Your task to perform on an android device: Open internet settings Image 0: 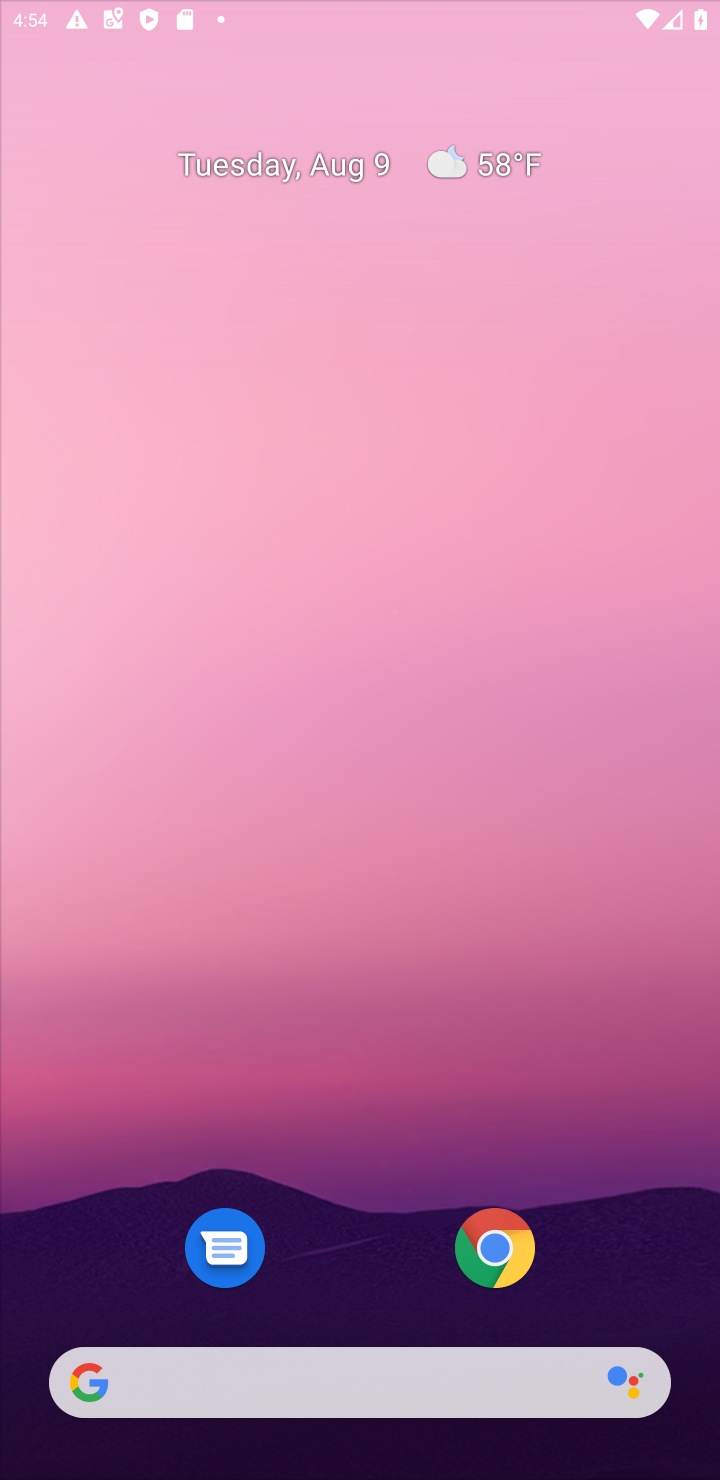
Step 0: press home button
Your task to perform on an android device: Open internet settings Image 1: 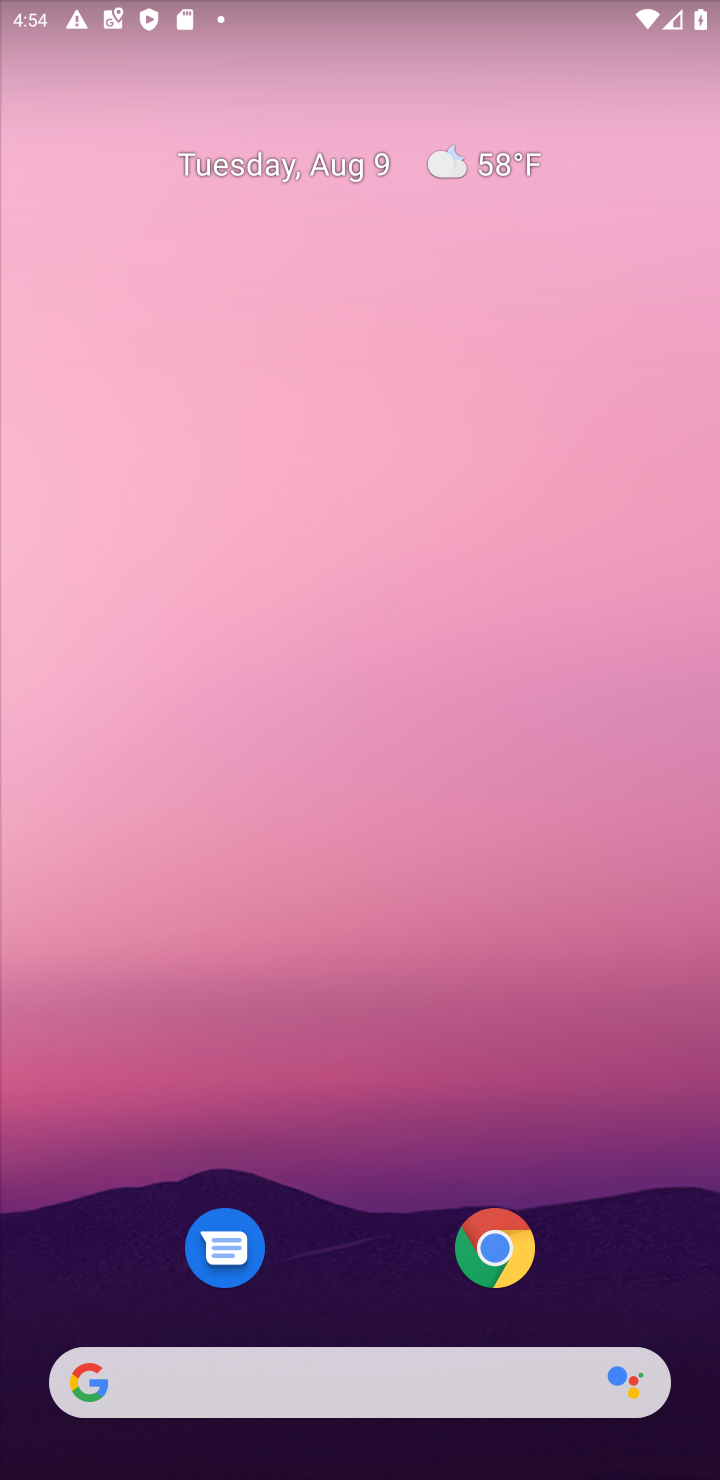
Step 1: drag from (367, 1158) to (295, 209)
Your task to perform on an android device: Open internet settings Image 2: 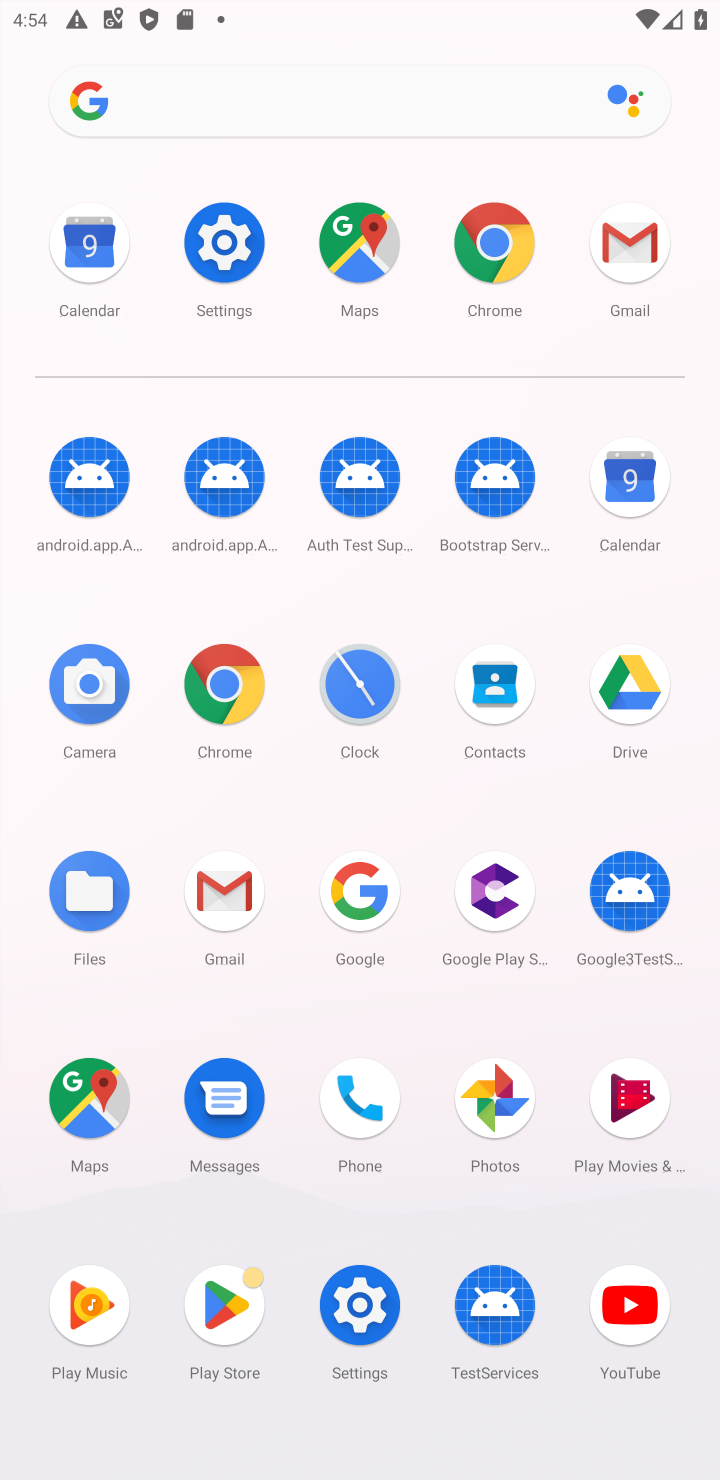
Step 2: click (218, 230)
Your task to perform on an android device: Open internet settings Image 3: 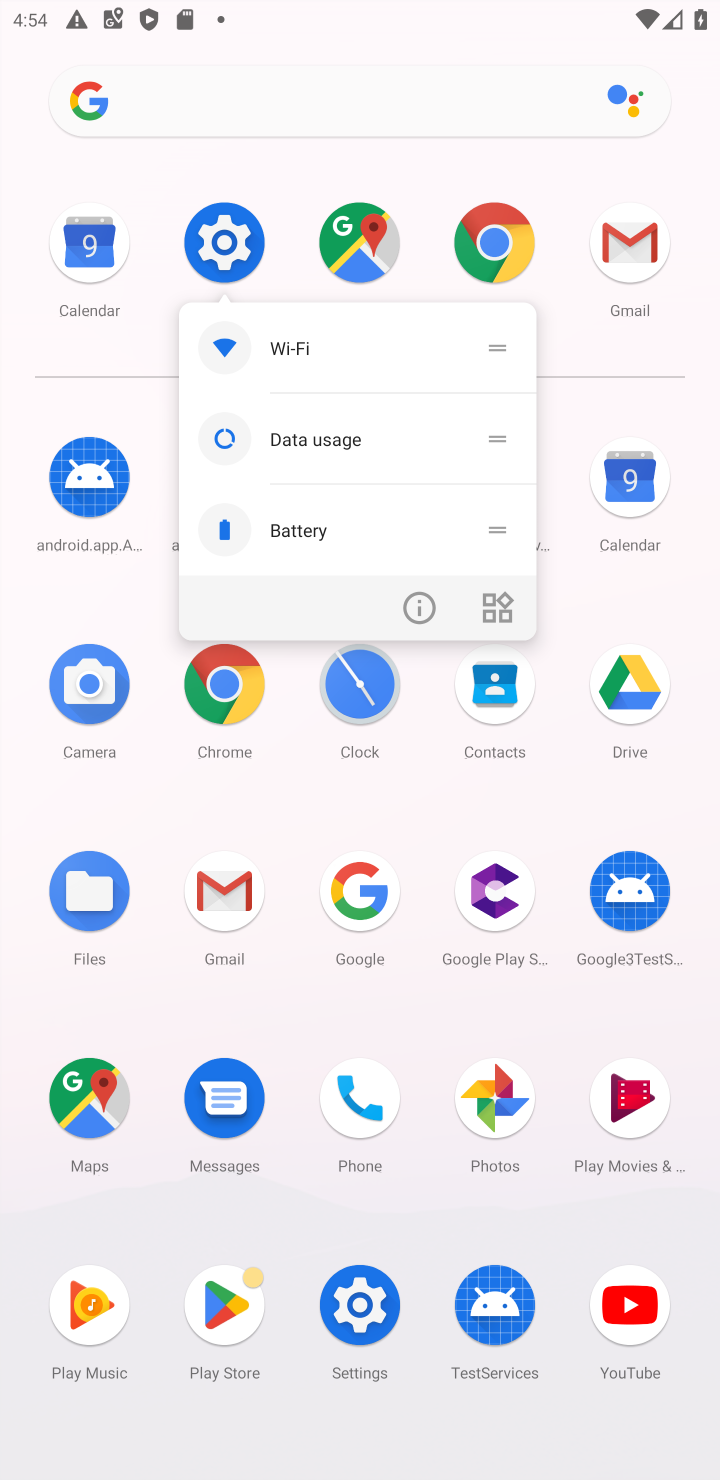
Step 3: click (365, 1297)
Your task to perform on an android device: Open internet settings Image 4: 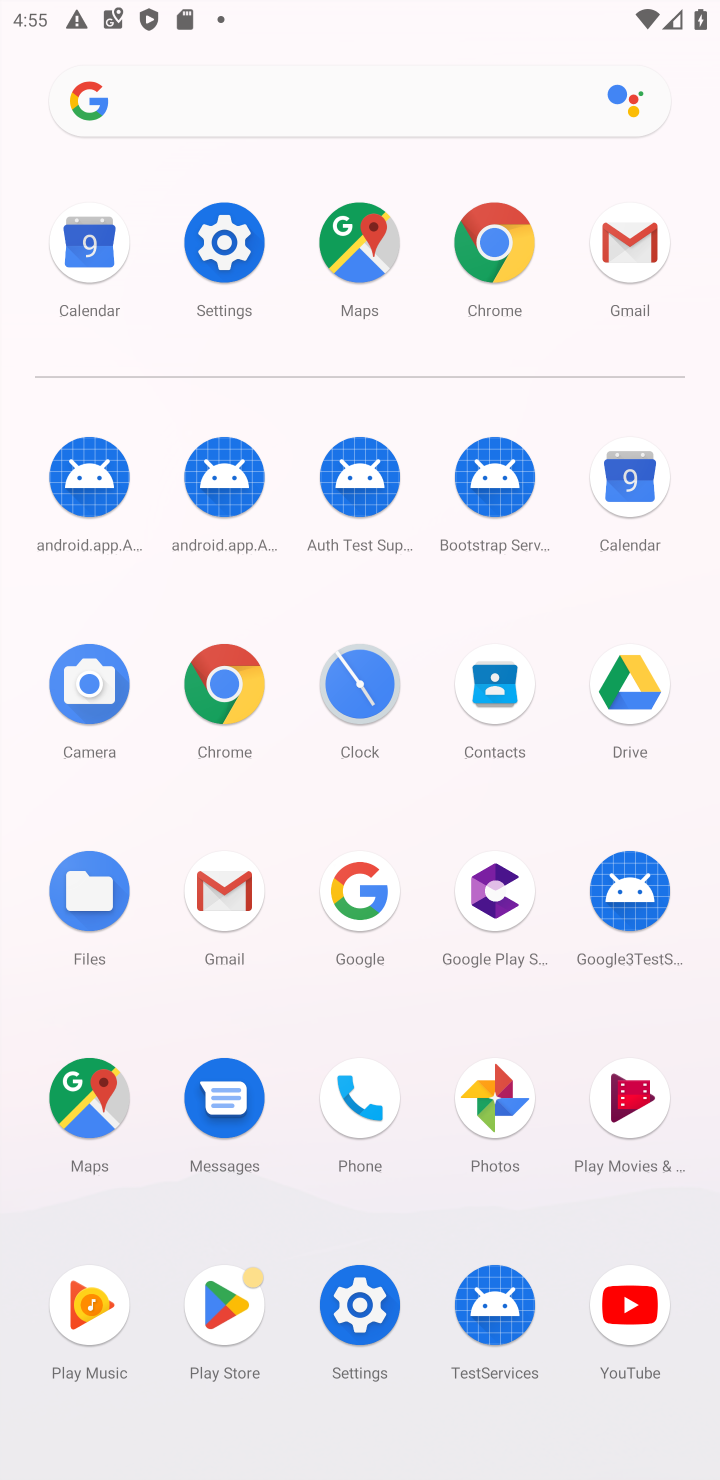
Step 4: click (365, 1297)
Your task to perform on an android device: Open internet settings Image 5: 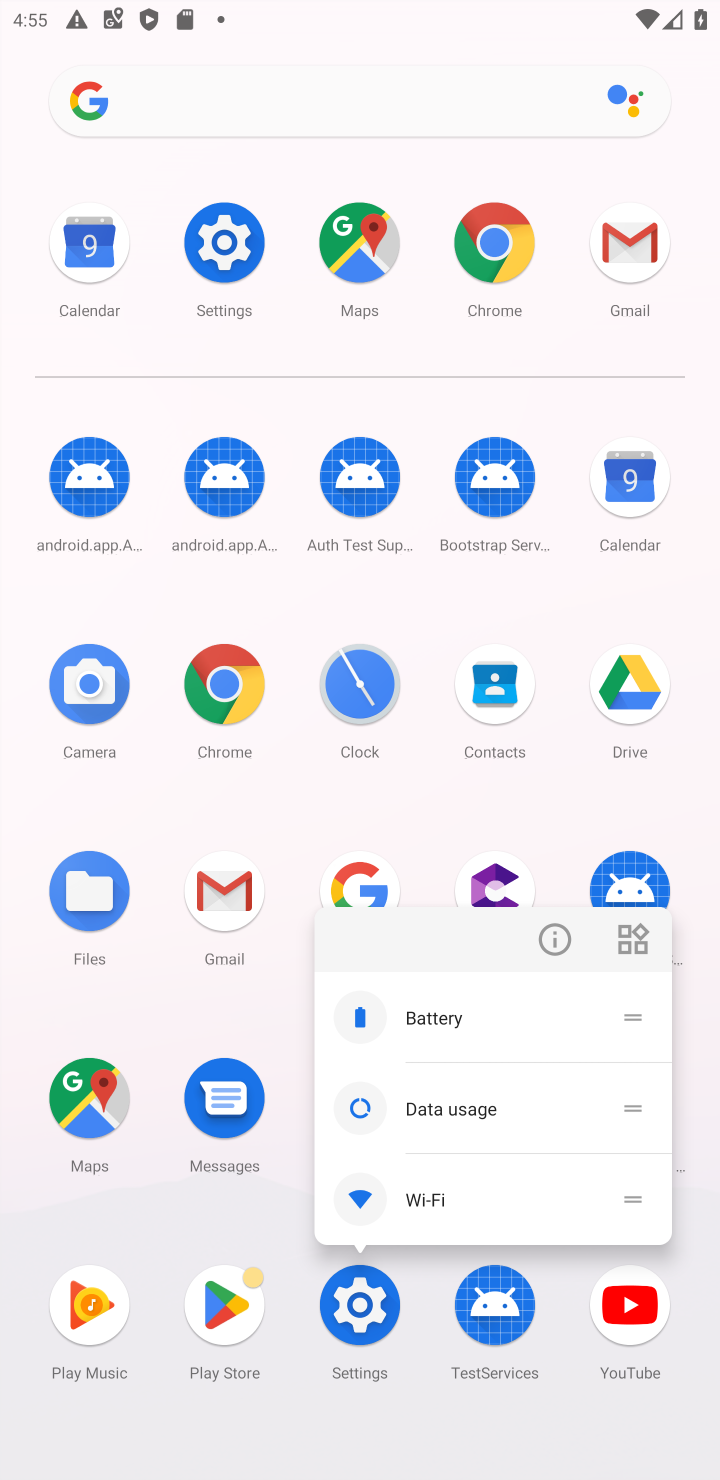
Step 5: click (365, 1297)
Your task to perform on an android device: Open internet settings Image 6: 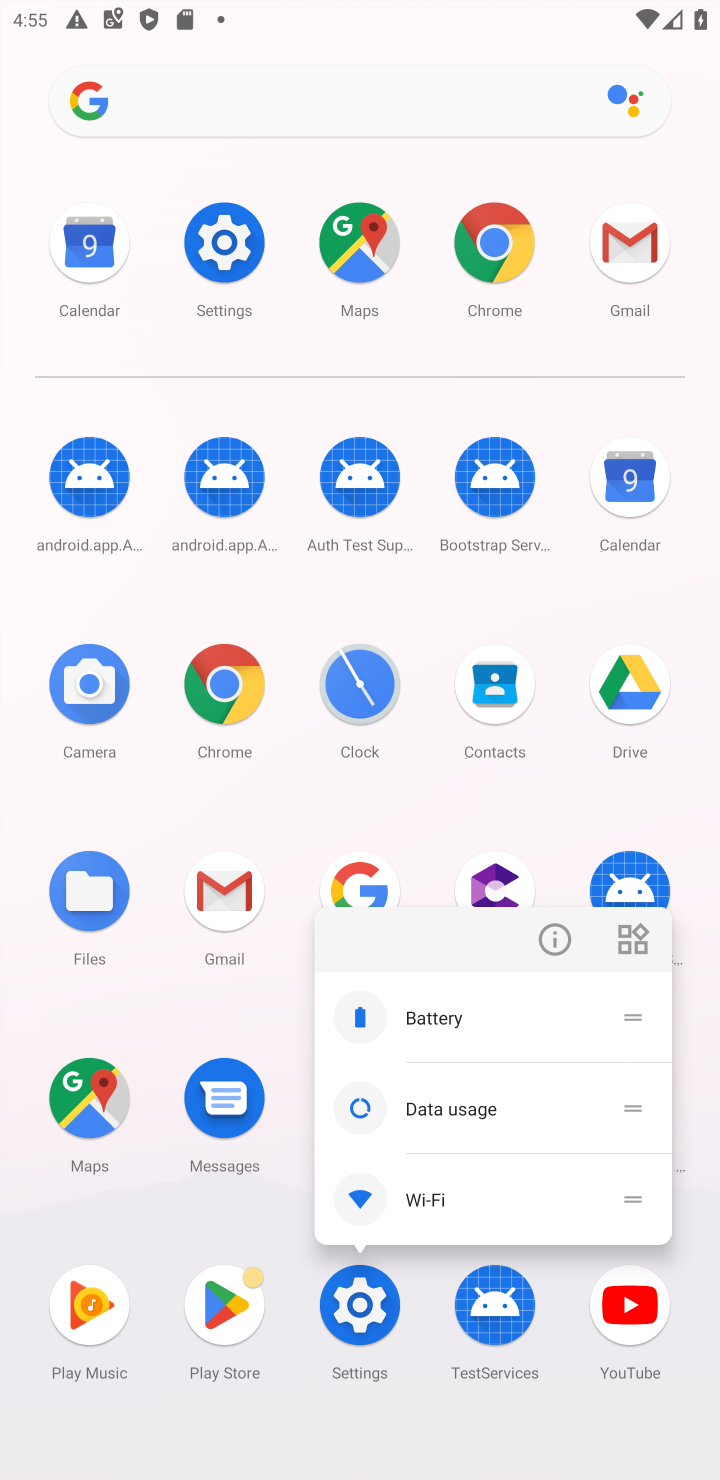
Step 6: click (365, 1297)
Your task to perform on an android device: Open internet settings Image 7: 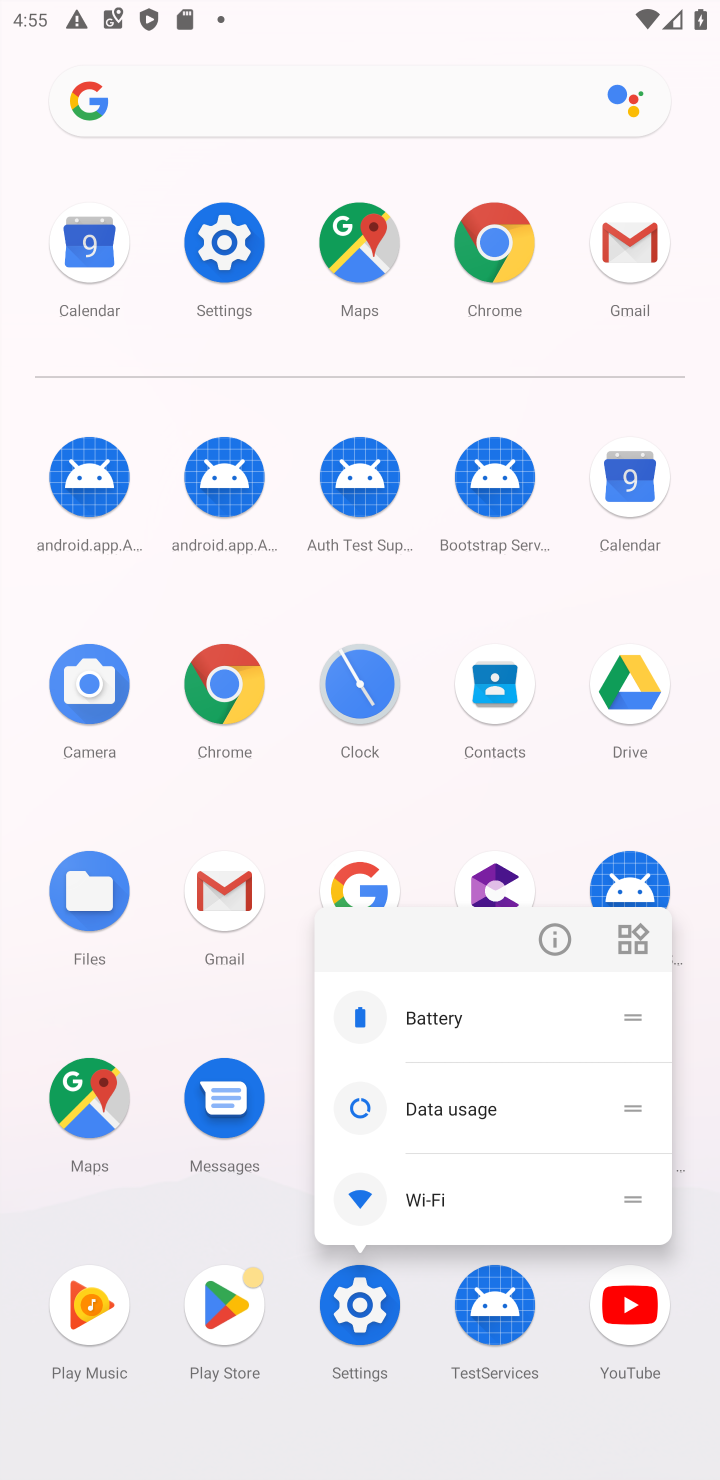
Step 7: click (365, 1292)
Your task to perform on an android device: Open internet settings Image 8: 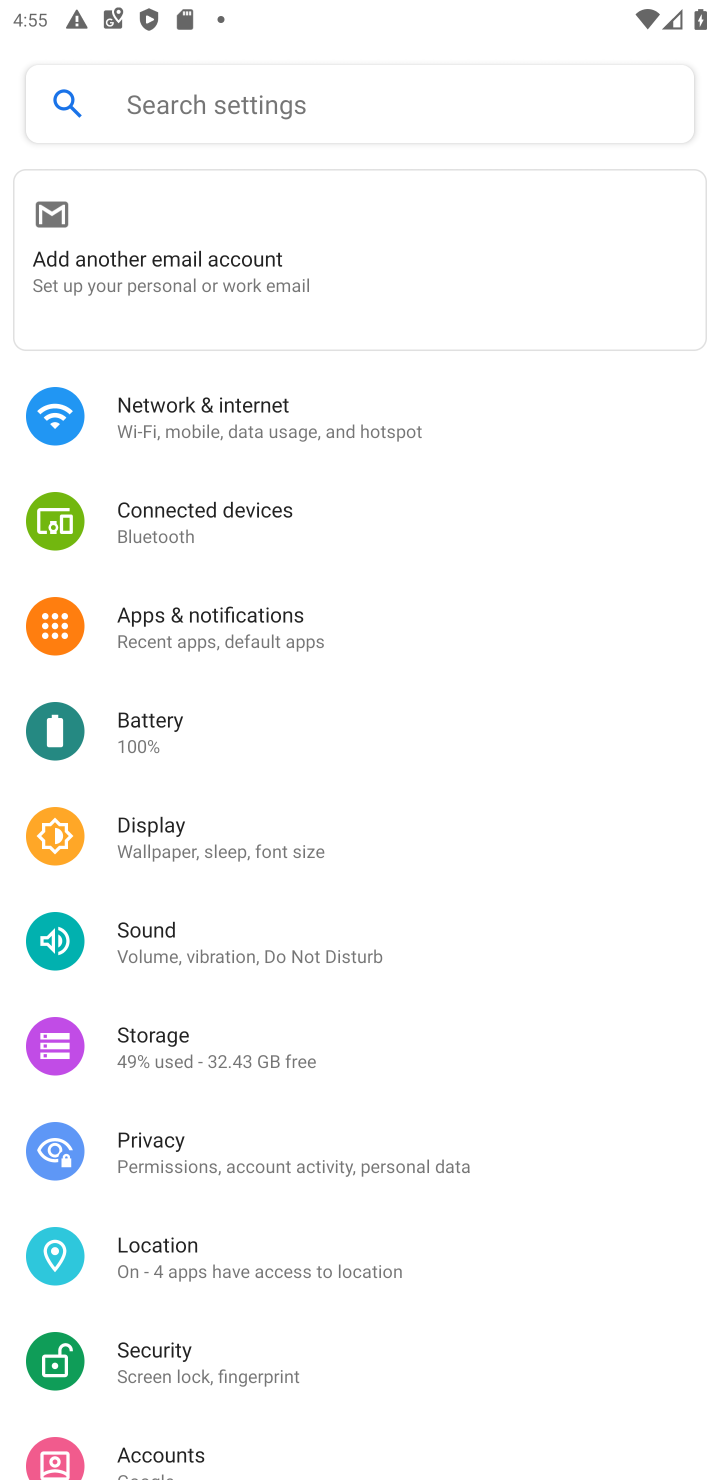
Step 8: click (142, 199)
Your task to perform on an android device: Open internet settings Image 9: 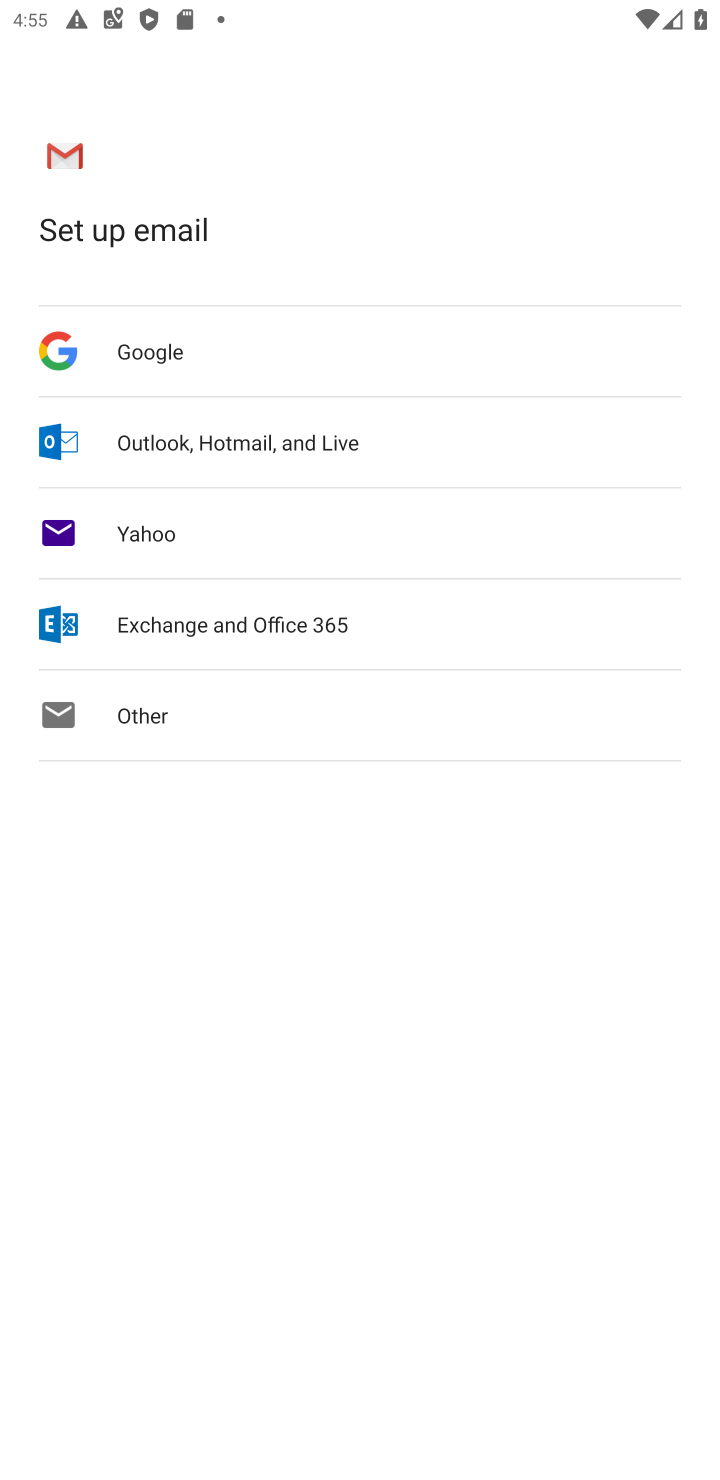
Step 9: press back button
Your task to perform on an android device: Open internet settings Image 10: 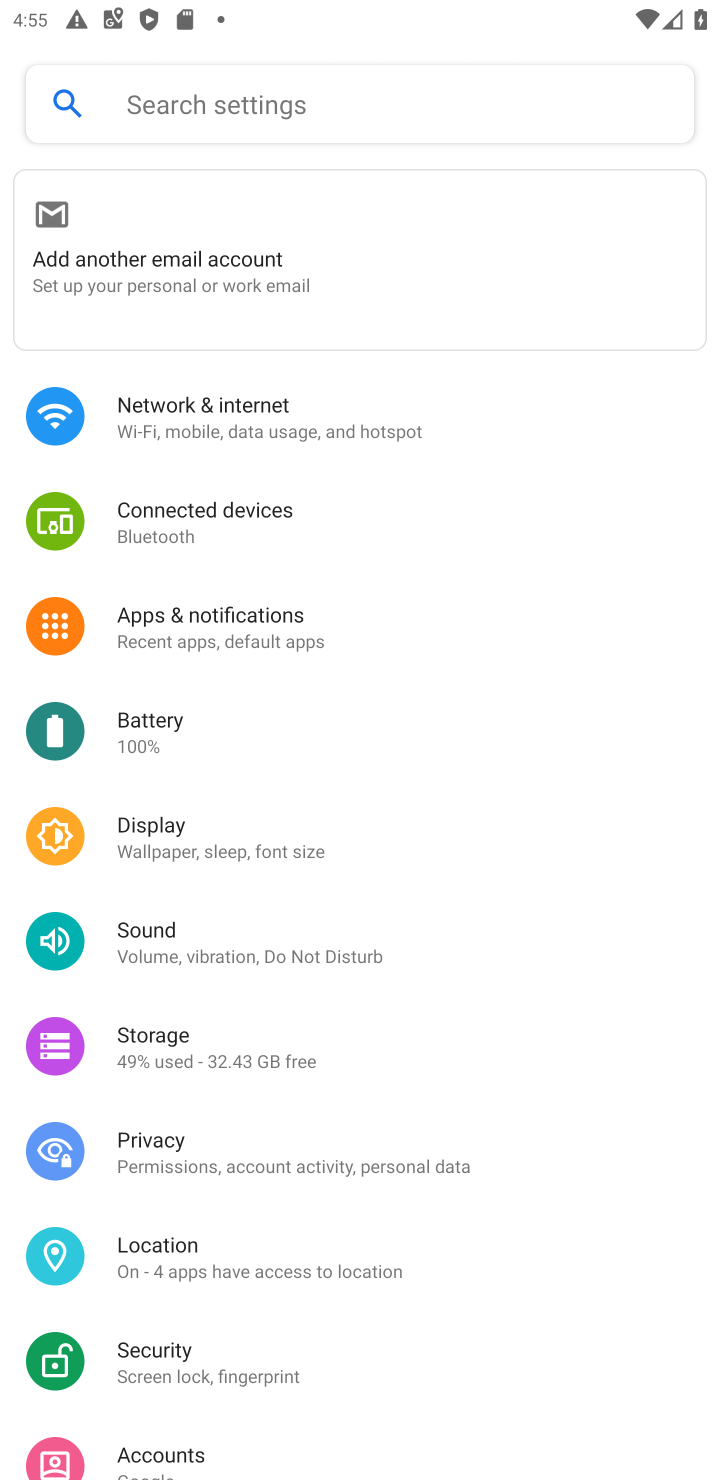
Step 10: click (221, 410)
Your task to perform on an android device: Open internet settings Image 11: 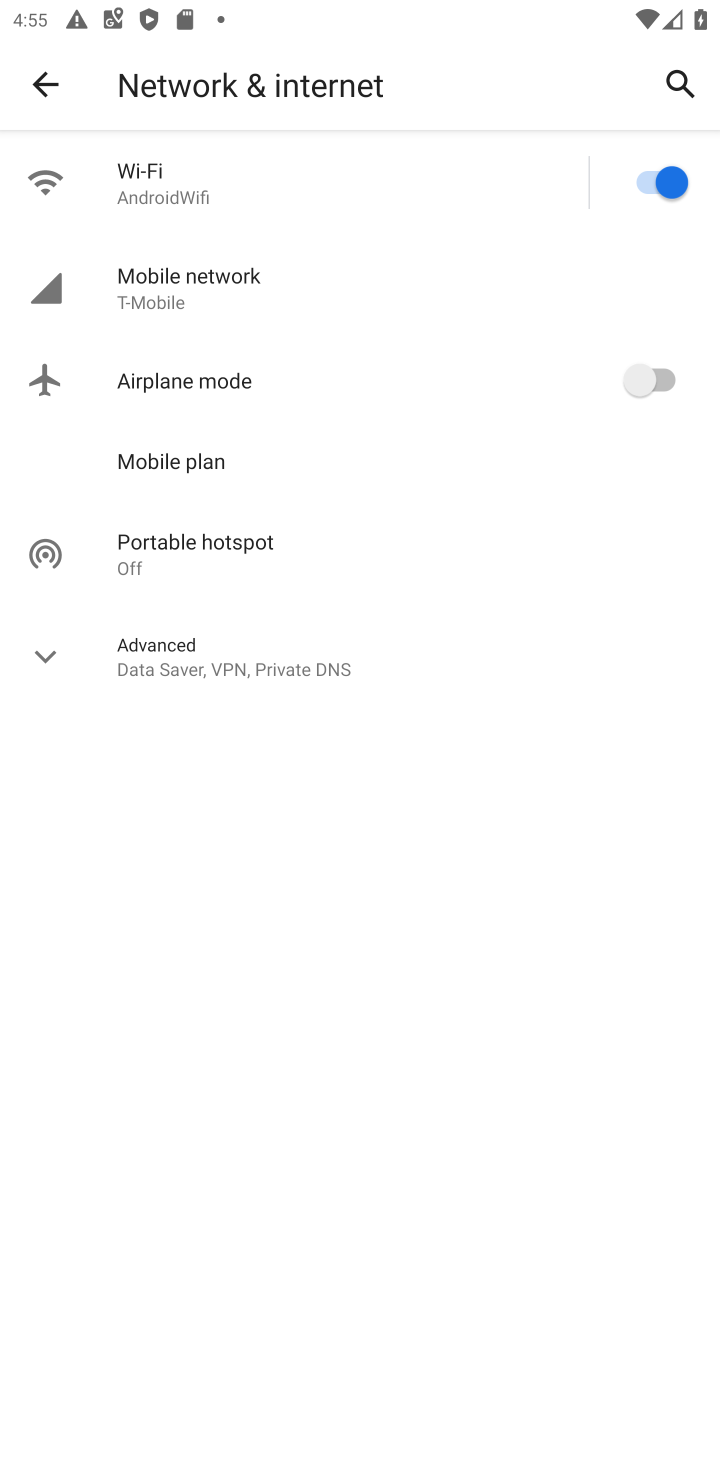
Step 11: click (166, 675)
Your task to perform on an android device: Open internet settings Image 12: 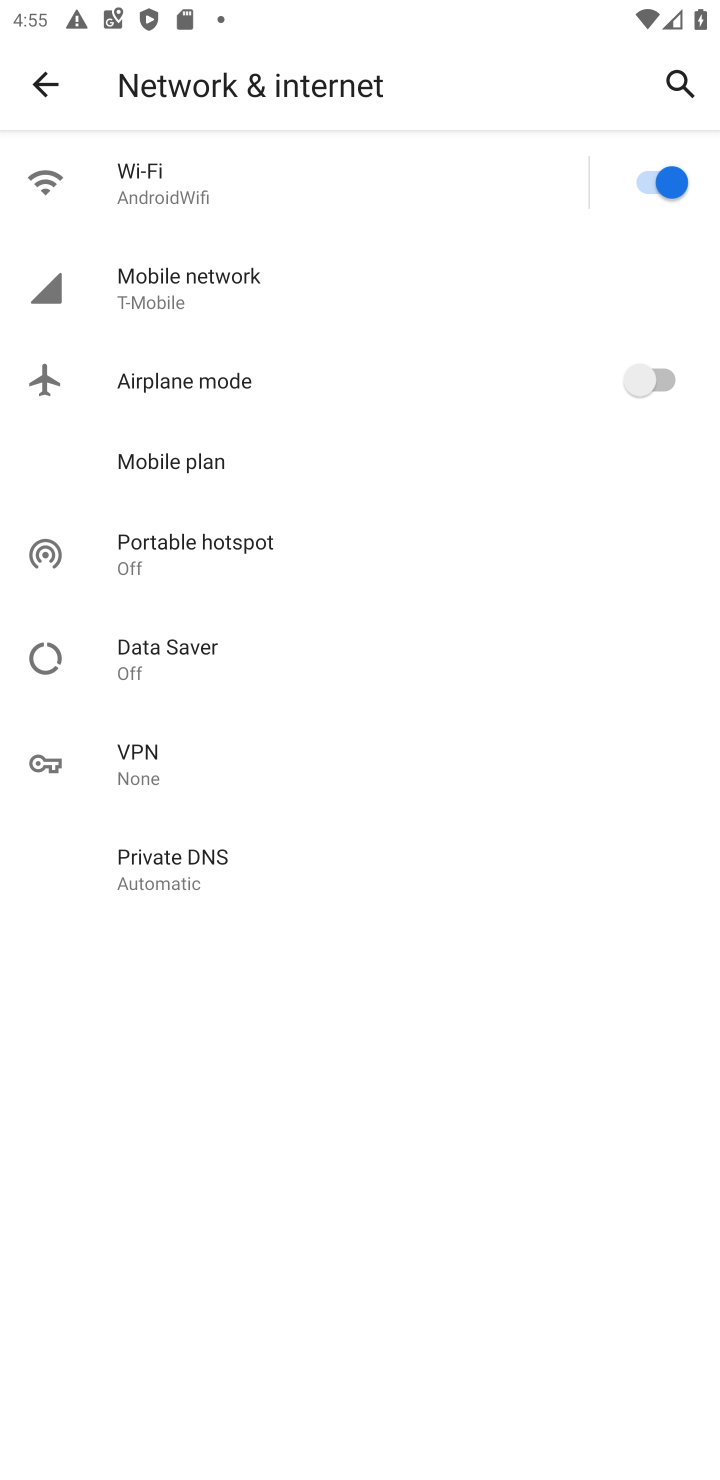
Step 12: task complete